Your task to perform on an android device: What is the recent news? Image 0: 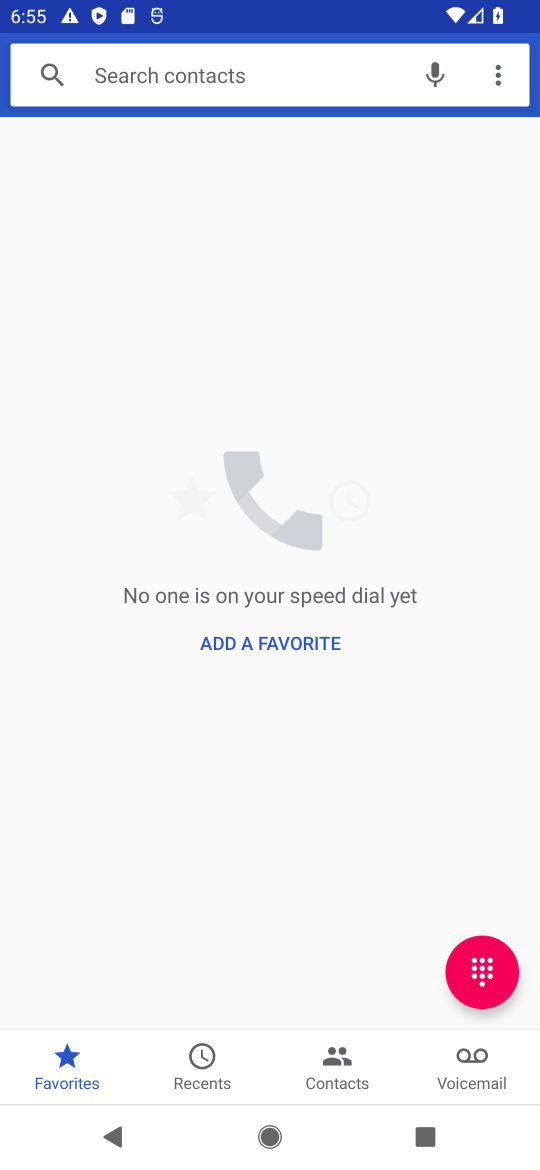
Step 0: press home button
Your task to perform on an android device: What is the recent news? Image 1: 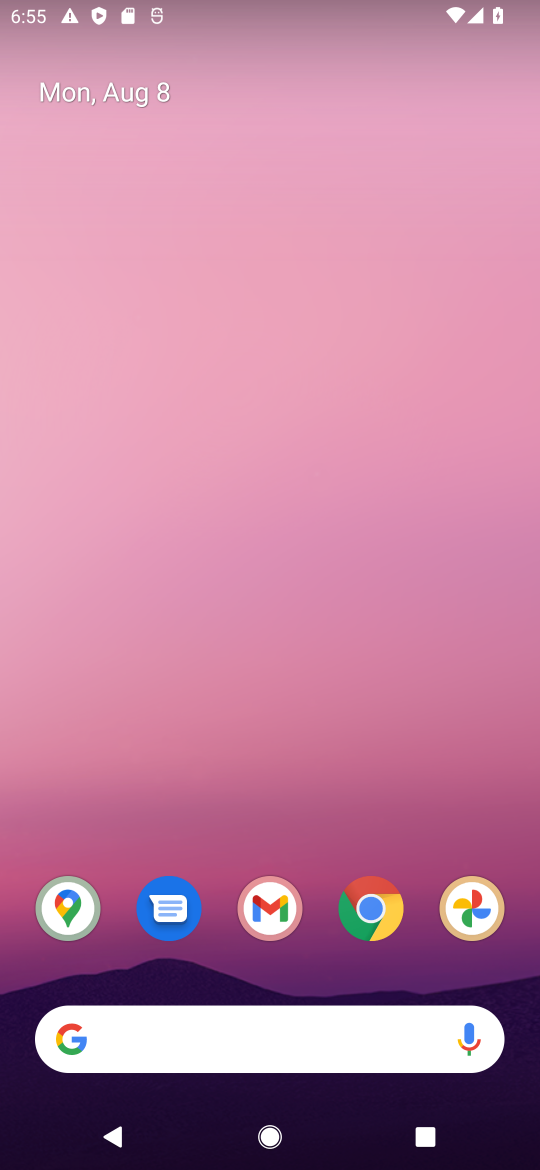
Step 1: click (142, 1032)
Your task to perform on an android device: What is the recent news? Image 2: 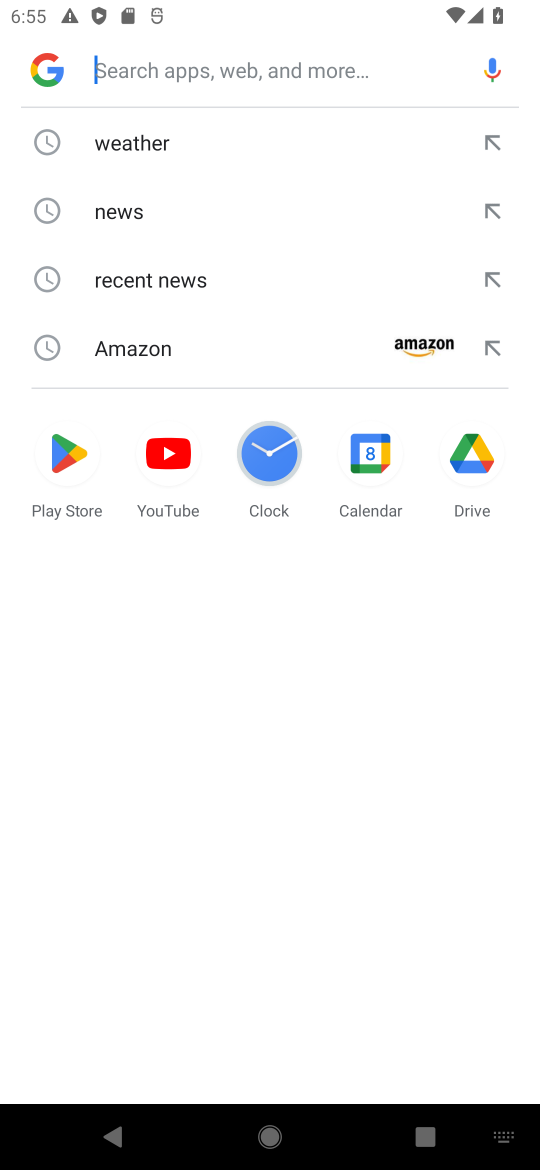
Step 2: click (230, 275)
Your task to perform on an android device: What is the recent news? Image 3: 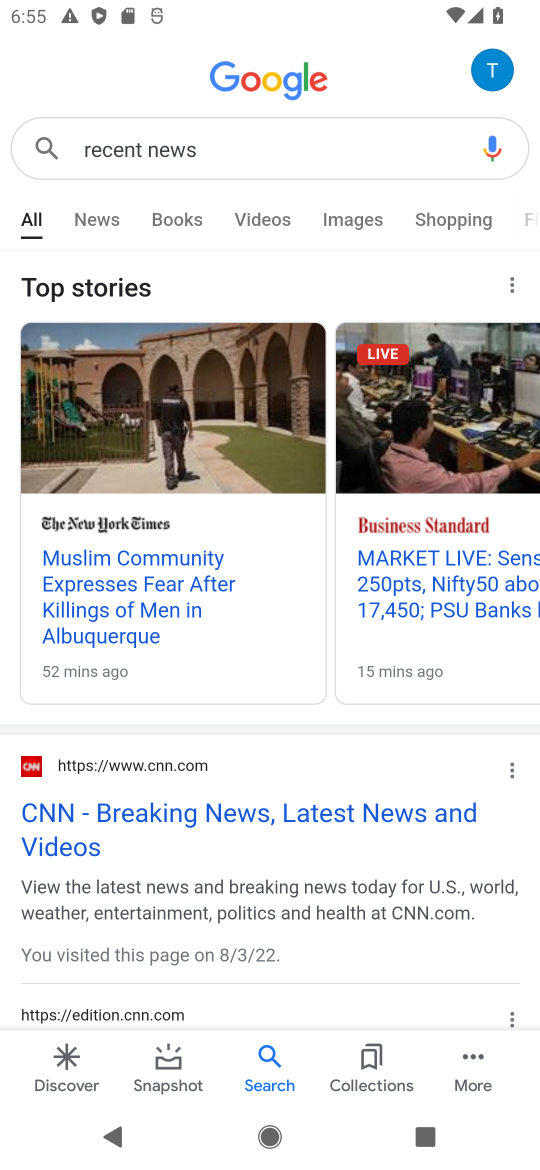
Step 3: task complete